Your task to perform on an android device: add a label to a message in the gmail app Image 0: 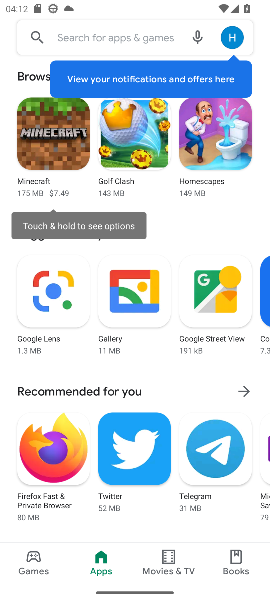
Step 0: press home button
Your task to perform on an android device: add a label to a message in the gmail app Image 1: 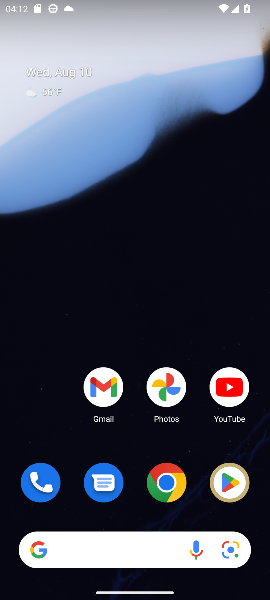
Step 1: drag from (143, 502) to (198, 42)
Your task to perform on an android device: add a label to a message in the gmail app Image 2: 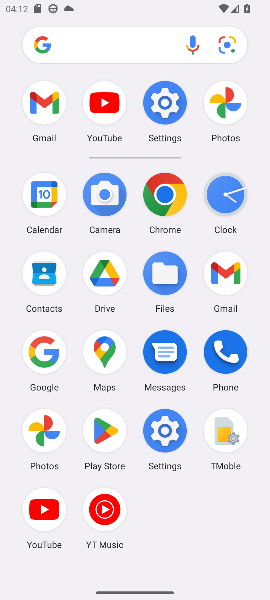
Step 2: click (229, 274)
Your task to perform on an android device: add a label to a message in the gmail app Image 3: 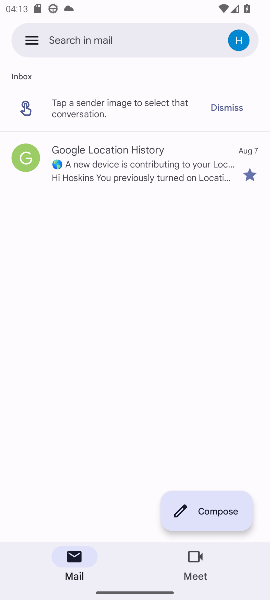
Step 3: click (26, 145)
Your task to perform on an android device: add a label to a message in the gmail app Image 4: 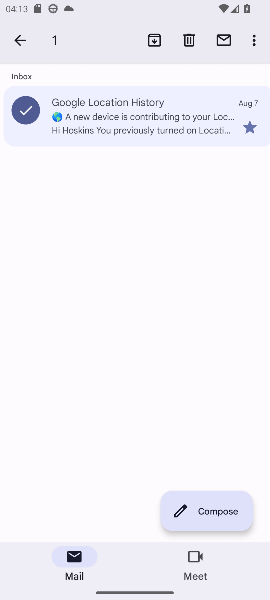
Step 4: click (249, 42)
Your task to perform on an android device: add a label to a message in the gmail app Image 5: 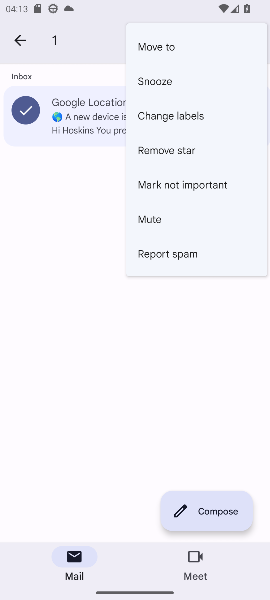
Step 5: task complete